Your task to perform on an android device: change the clock display to digital Image 0: 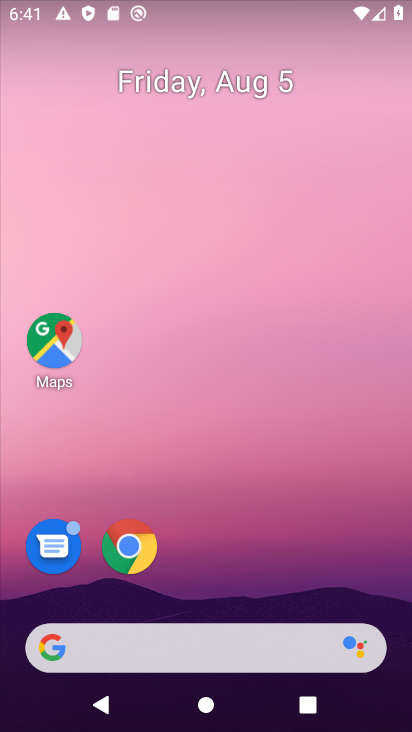
Step 0: drag from (209, 563) to (265, 102)
Your task to perform on an android device: change the clock display to digital Image 1: 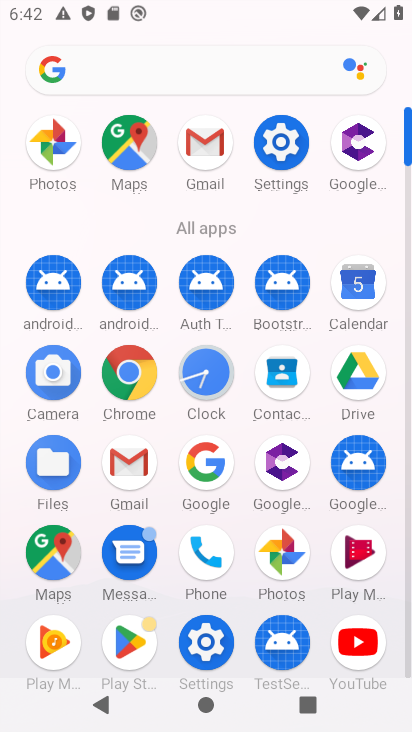
Step 1: click (213, 376)
Your task to perform on an android device: change the clock display to digital Image 2: 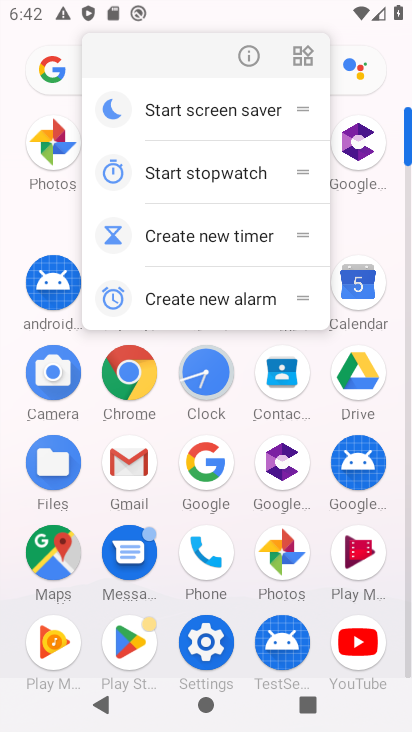
Step 2: click (254, 49)
Your task to perform on an android device: change the clock display to digital Image 3: 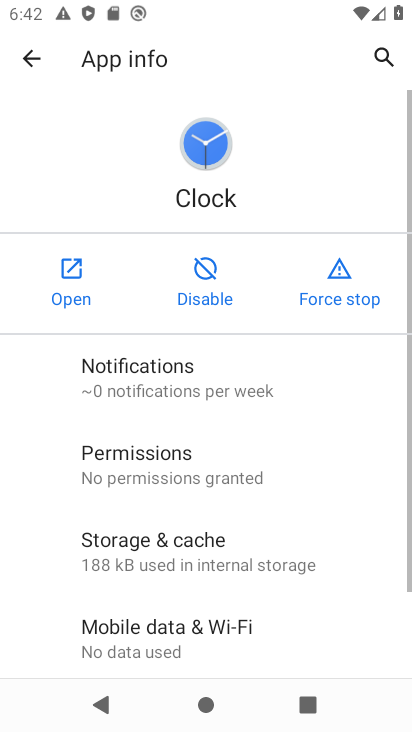
Step 3: click (104, 274)
Your task to perform on an android device: change the clock display to digital Image 4: 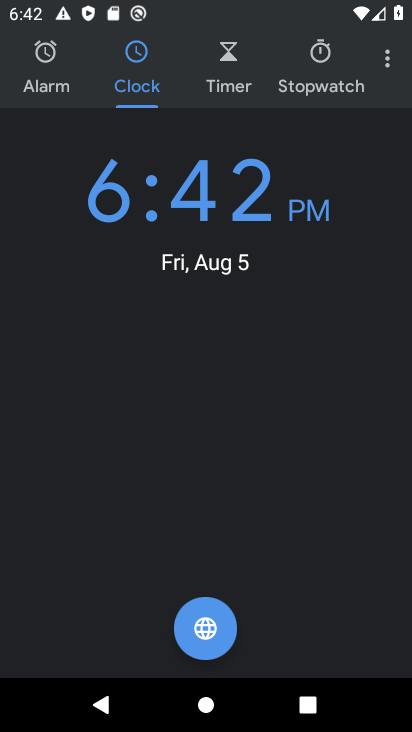
Step 4: drag from (390, 64) to (314, 100)
Your task to perform on an android device: change the clock display to digital Image 5: 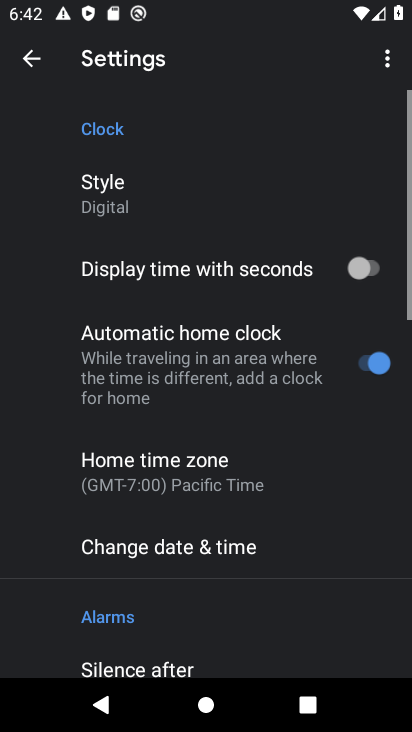
Step 5: click (136, 187)
Your task to perform on an android device: change the clock display to digital Image 6: 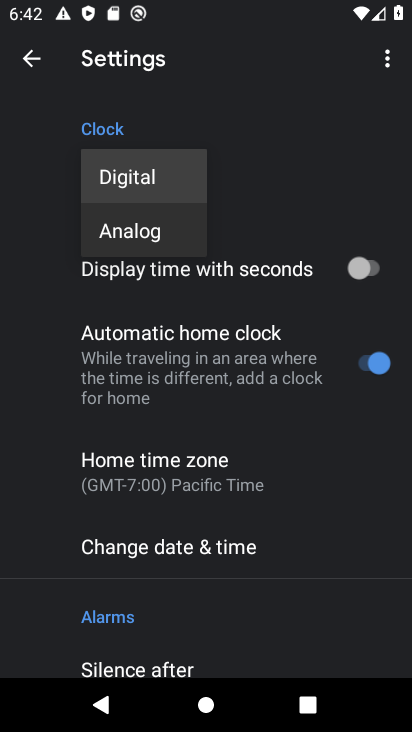
Step 6: click (146, 185)
Your task to perform on an android device: change the clock display to digital Image 7: 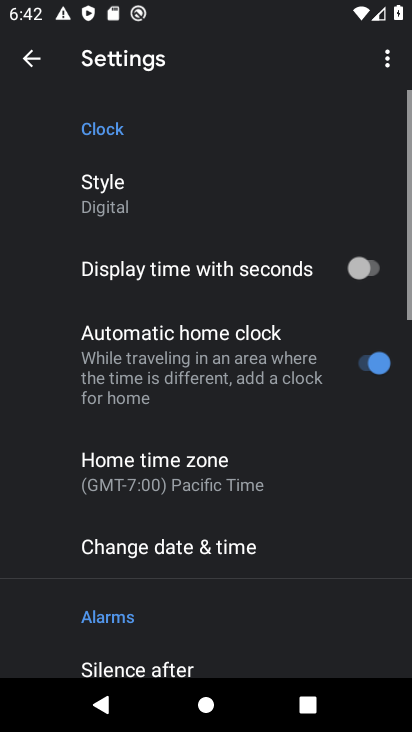
Step 7: task complete